Your task to perform on an android device: Open the stopwatch Image 0: 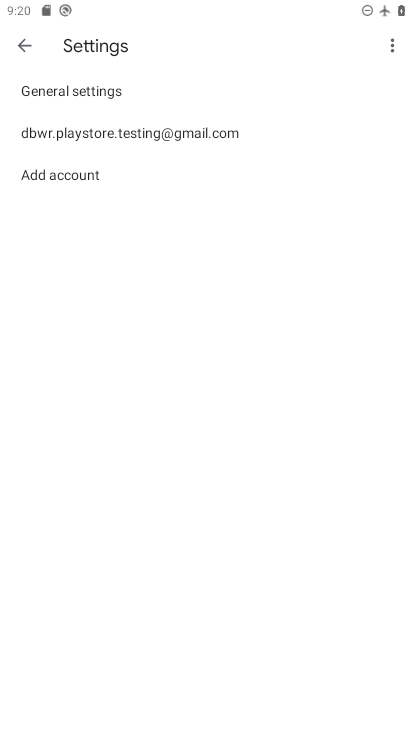
Step 0: press home button
Your task to perform on an android device: Open the stopwatch Image 1: 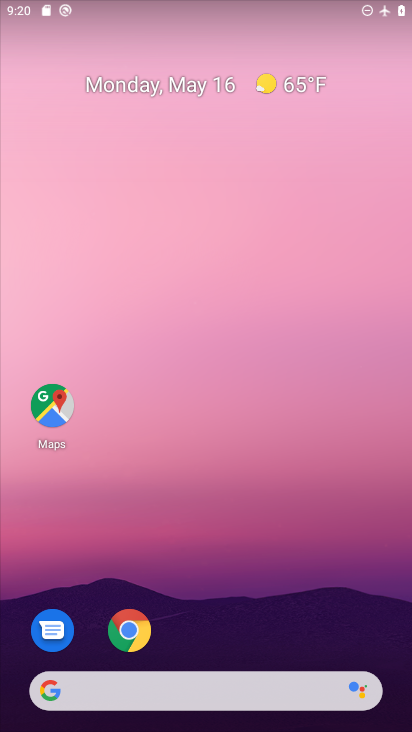
Step 1: drag from (200, 648) to (203, 326)
Your task to perform on an android device: Open the stopwatch Image 2: 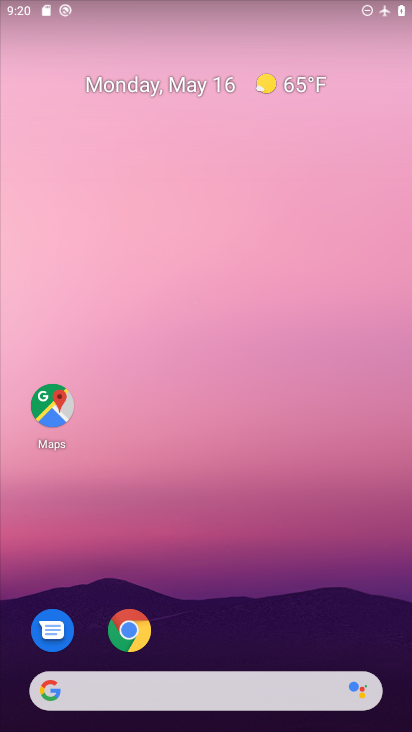
Step 2: drag from (220, 644) to (210, 180)
Your task to perform on an android device: Open the stopwatch Image 3: 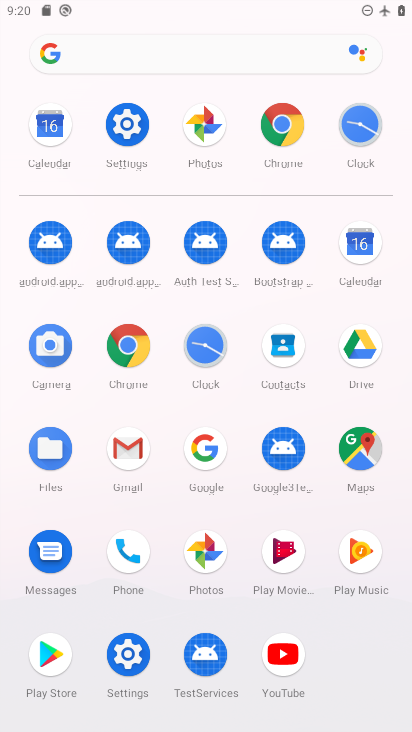
Step 3: click (349, 118)
Your task to perform on an android device: Open the stopwatch Image 4: 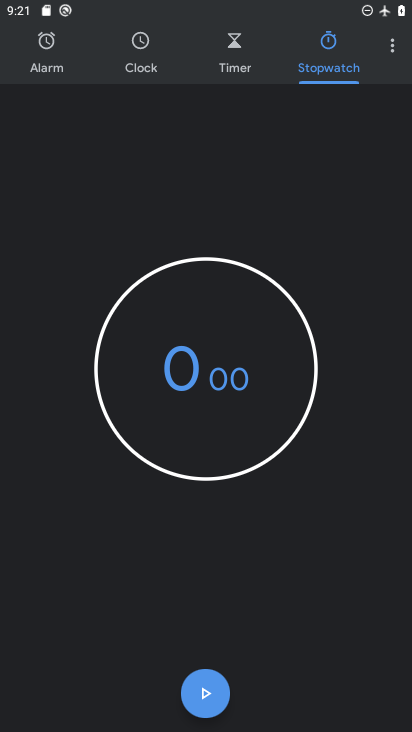
Step 4: task complete